Your task to perform on an android device: delete the emails in spam in the gmail app Image 0: 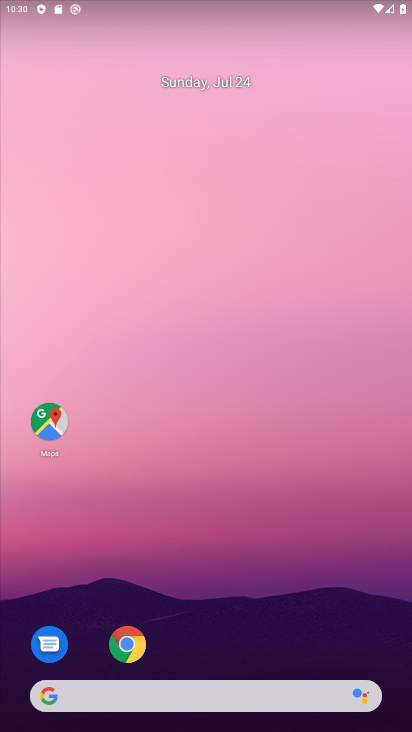
Step 0: drag from (296, 660) to (330, 23)
Your task to perform on an android device: delete the emails in spam in the gmail app Image 1: 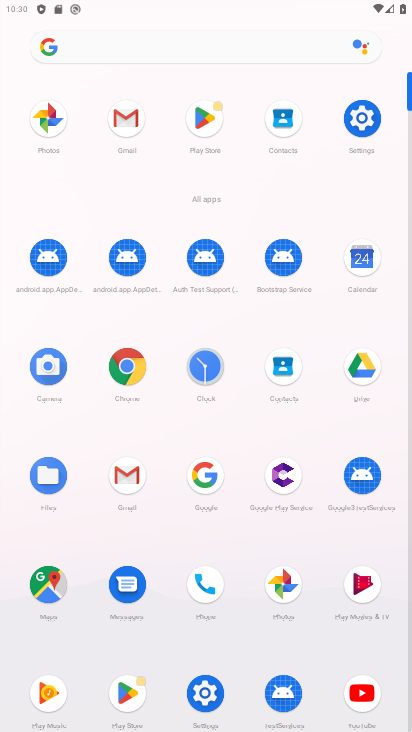
Step 1: click (131, 133)
Your task to perform on an android device: delete the emails in spam in the gmail app Image 2: 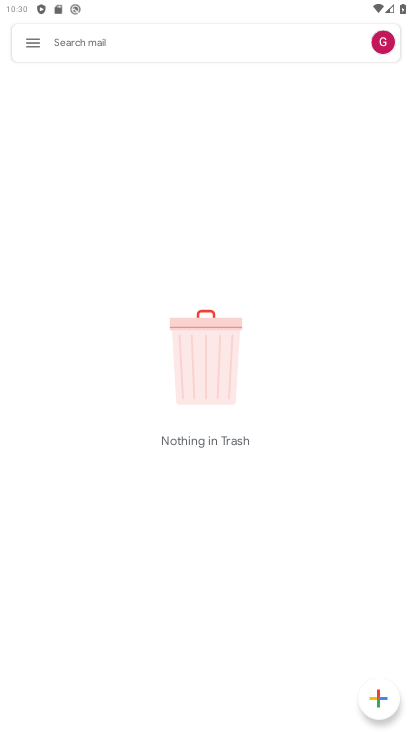
Step 2: click (28, 46)
Your task to perform on an android device: delete the emails in spam in the gmail app Image 3: 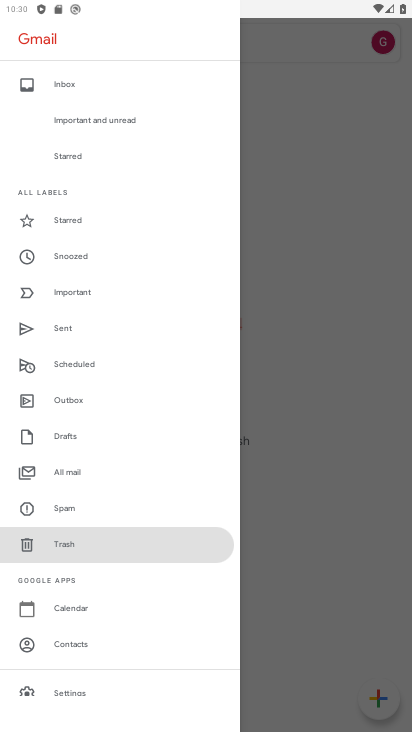
Step 3: click (72, 510)
Your task to perform on an android device: delete the emails in spam in the gmail app Image 4: 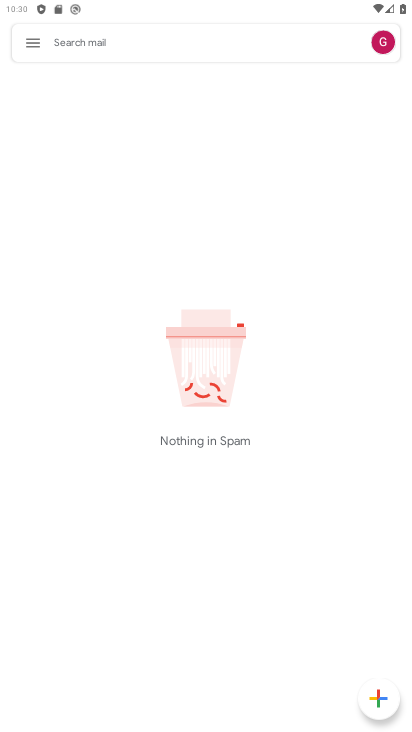
Step 4: task complete